Your task to perform on an android device: Open Google Maps and go to "Timeline" Image 0: 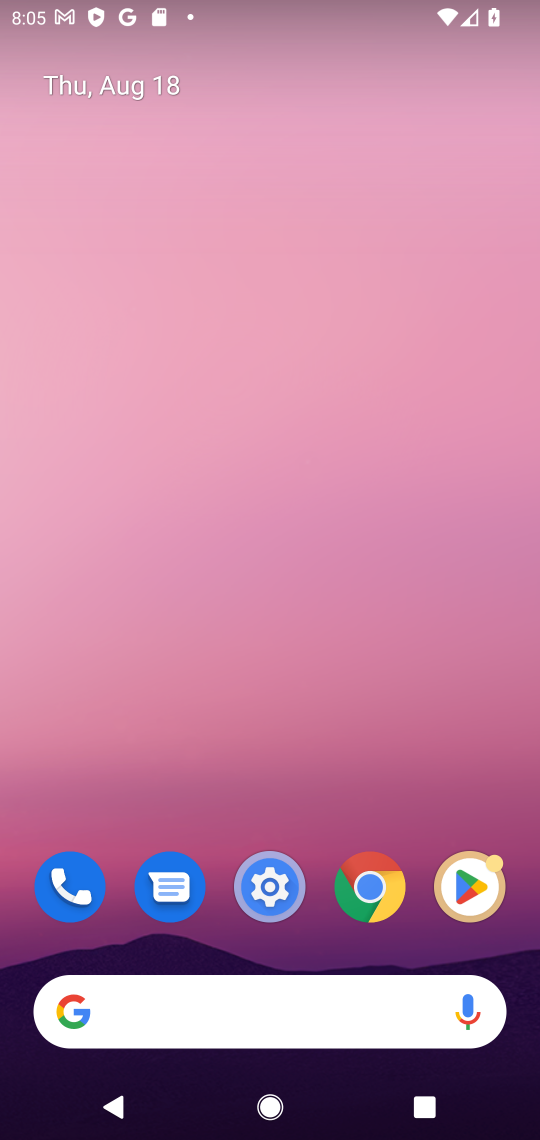
Step 0: drag from (333, 942) to (398, 234)
Your task to perform on an android device: Open Google Maps and go to "Timeline" Image 1: 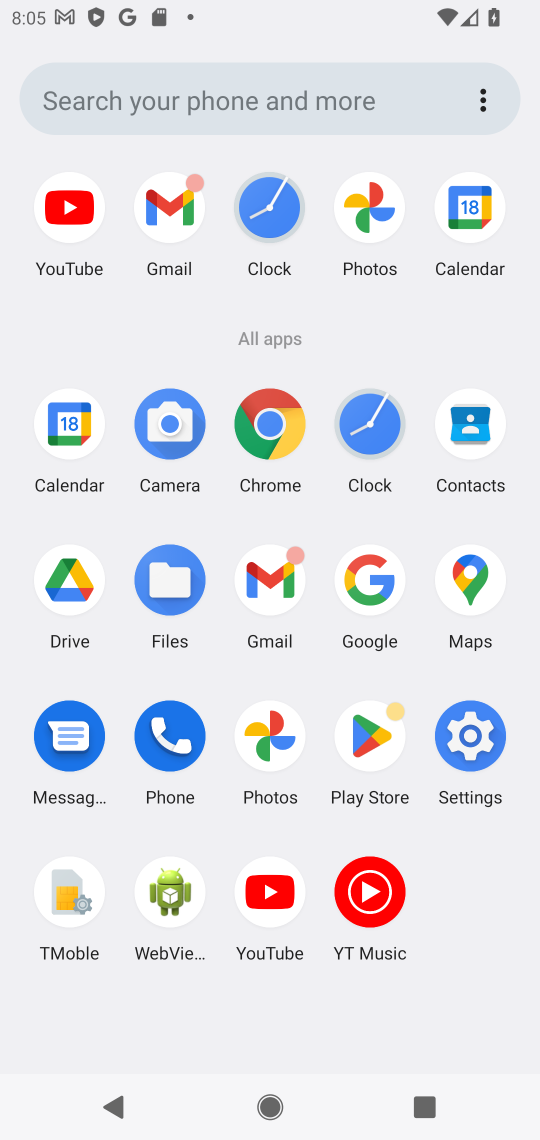
Step 1: click (452, 582)
Your task to perform on an android device: Open Google Maps and go to "Timeline" Image 2: 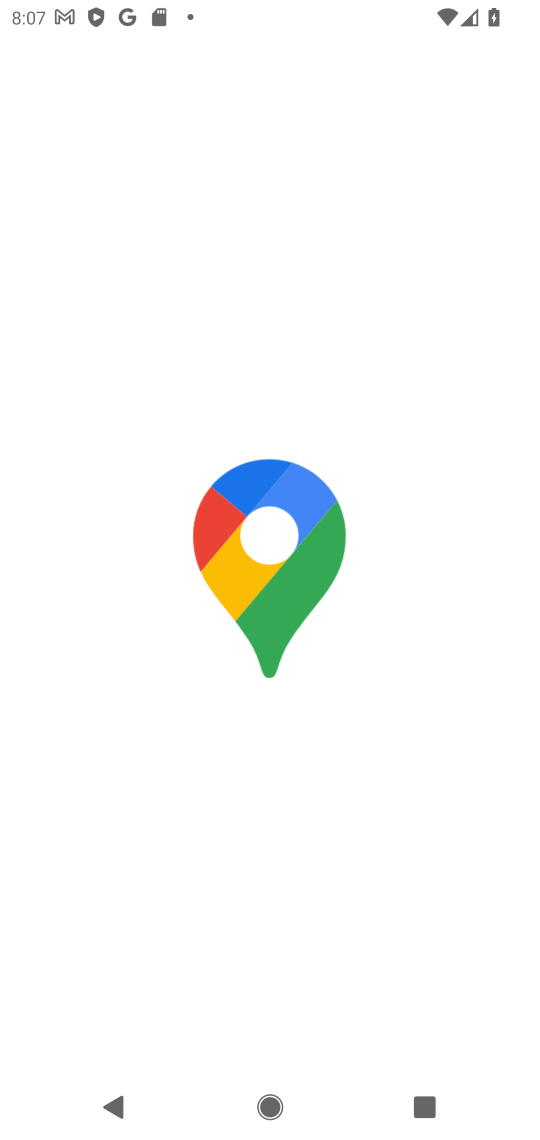
Step 2: task complete